Your task to perform on an android device: turn on the 24-hour format for clock Image 0: 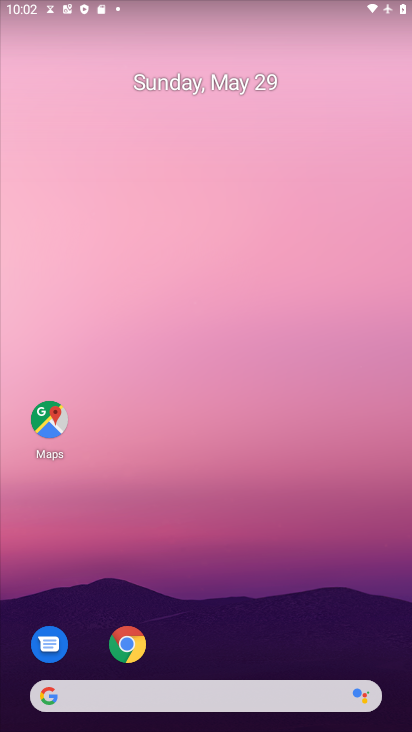
Step 0: drag from (222, 632) to (247, 221)
Your task to perform on an android device: turn on the 24-hour format for clock Image 1: 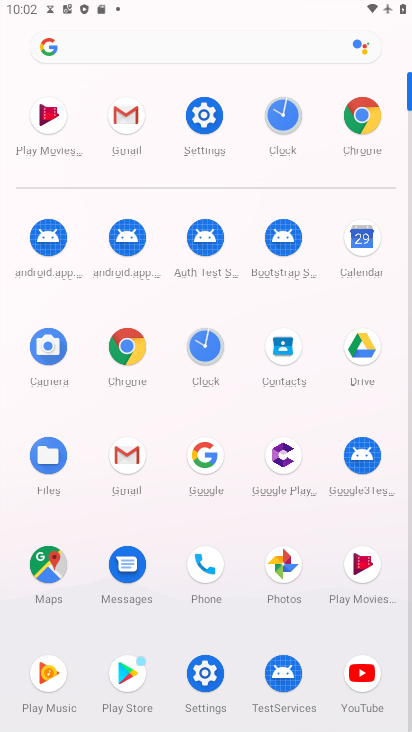
Step 1: click (197, 339)
Your task to perform on an android device: turn on the 24-hour format for clock Image 2: 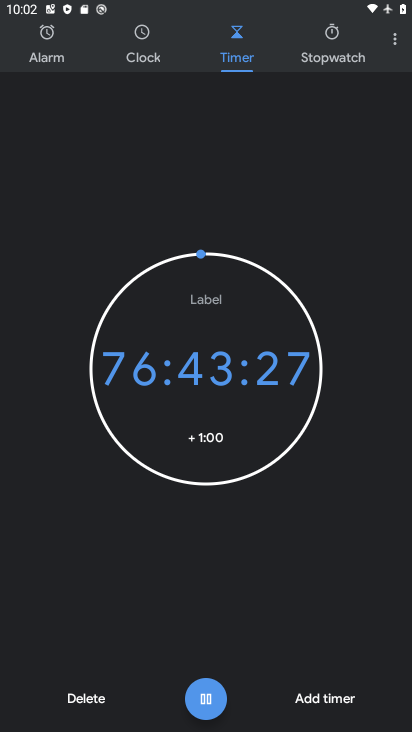
Step 2: click (386, 30)
Your task to perform on an android device: turn on the 24-hour format for clock Image 3: 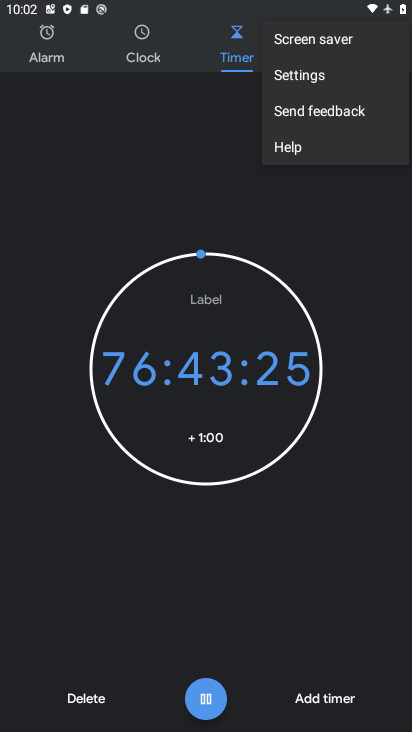
Step 3: click (329, 72)
Your task to perform on an android device: turn on the 24-hour format for clock Image 4: 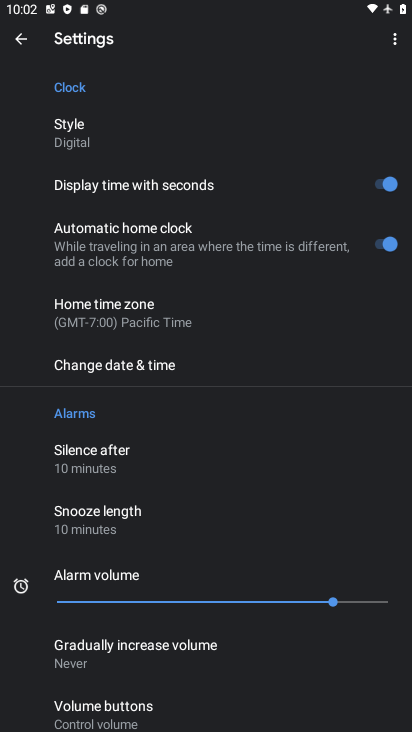
Step 4: click (157, 358)
Your task to perform on an android device: turn on the 24-hour format for clock Image 5: 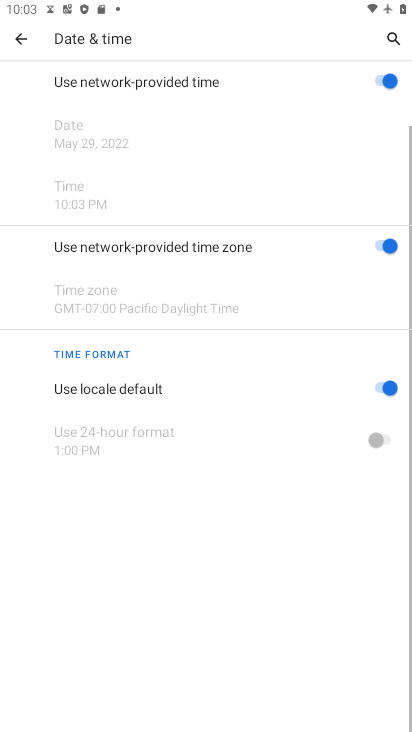
Step 5: click (381, 383)
Your task to perform on an android device: turn on the 24-hour format for clock Image 6: 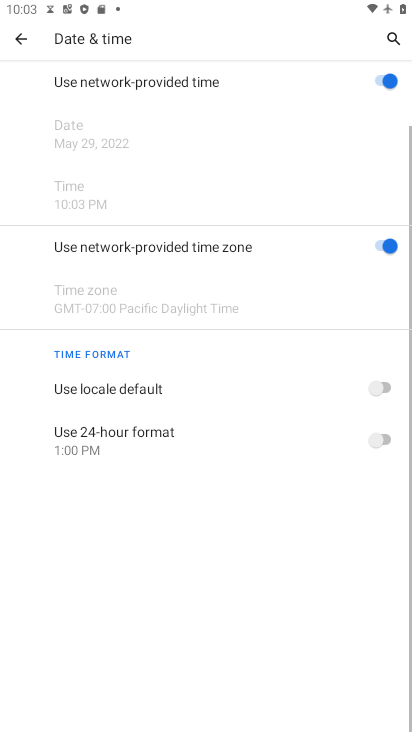
Step 6: click (386, 431)
Your task to perform on an android device: turn on the 24-hour format for clock Image 7: 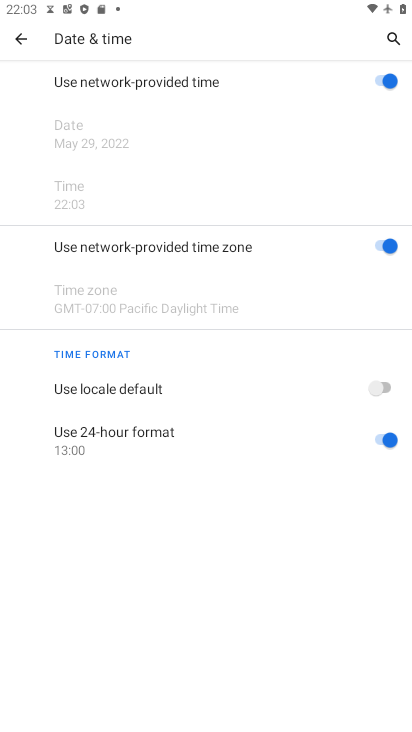
Step 7: task complete